Your task to perform on an android device: turn notification dots on Image 0: 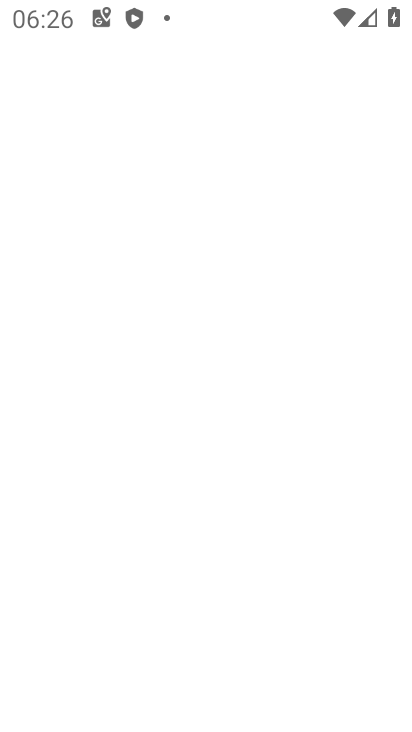
Step 0: drag from (322, 595) to (322, 105)
Your task to perform on an android device: turn notification dots on Image 1: 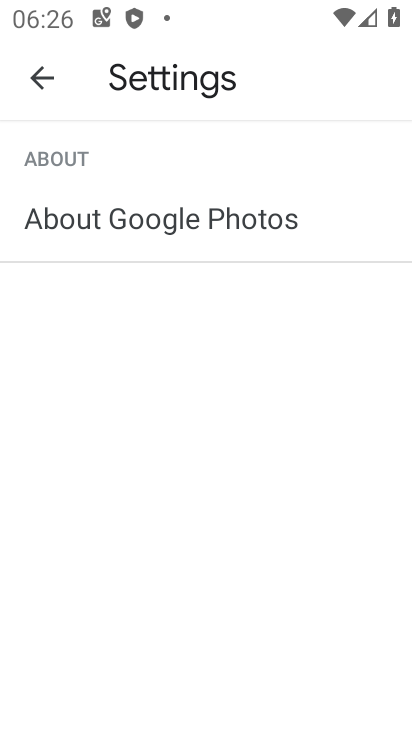
Step 1: press home button
Your task to perform on an android device: turn notification dots on Image 2: 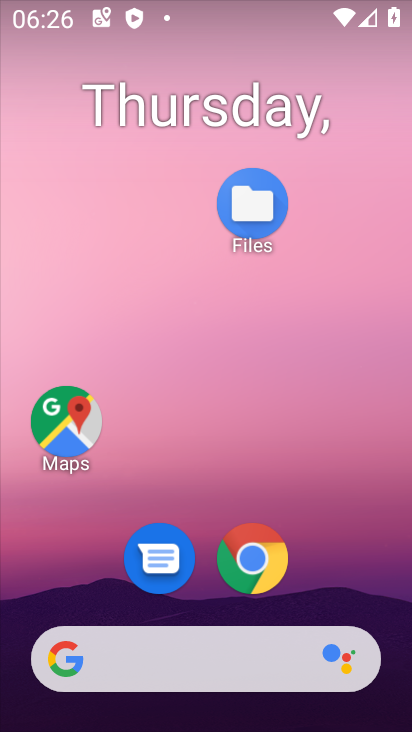
Step 2: drag from (313, 511) to (342, 161)
Your task to perform on an android device: turn notification dots on Image 3: 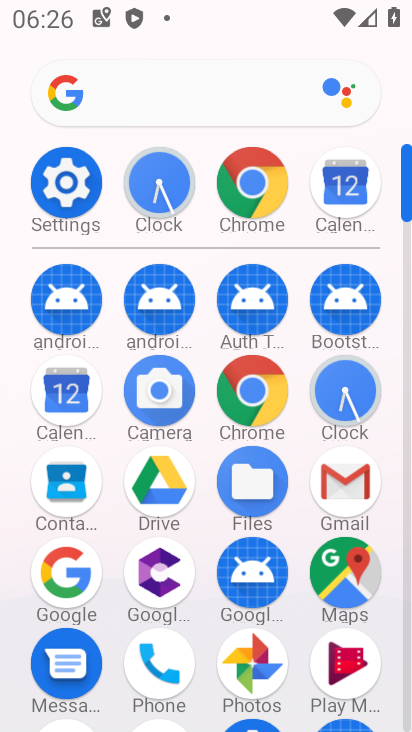
Step 3: click (64, 195)
Your task to perform on an android device: turn notification dots on Image 4: 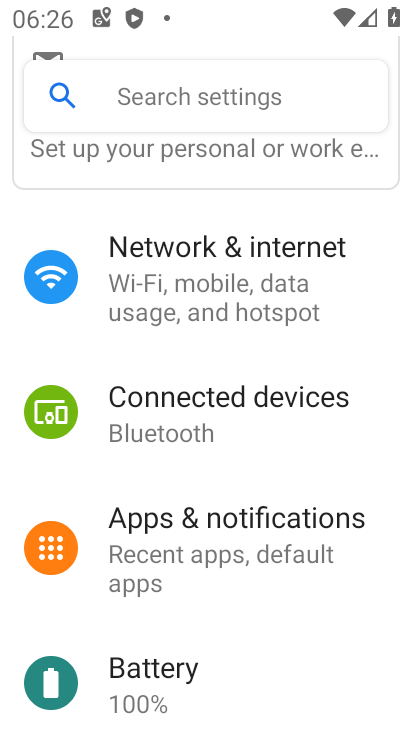
Step 4: click (219, 569)
Your task to perform on an android device: turn notification dots on Image 5: 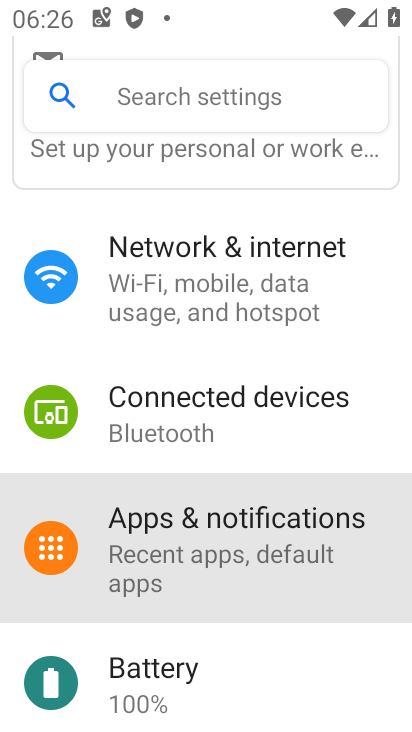
Step 5: click (240, 543)
Your task to perform on an android device: turn notification dots on Image 6: 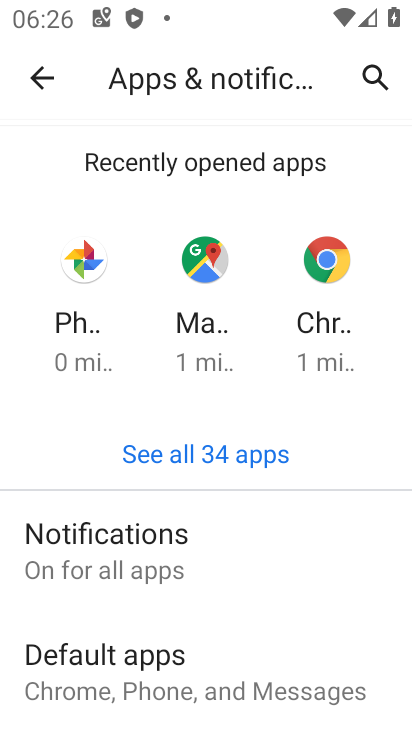
Step 6: click (80, 567)
Your task to perform on an android device: turn notification dots on Image 7: 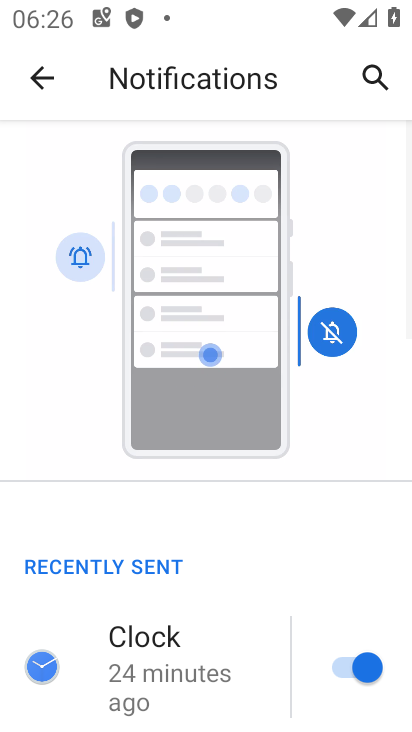
Step 7: drag from (181, 662) to (263, 272)
Your task to perform on an android device: turn notification dots on Image 8: 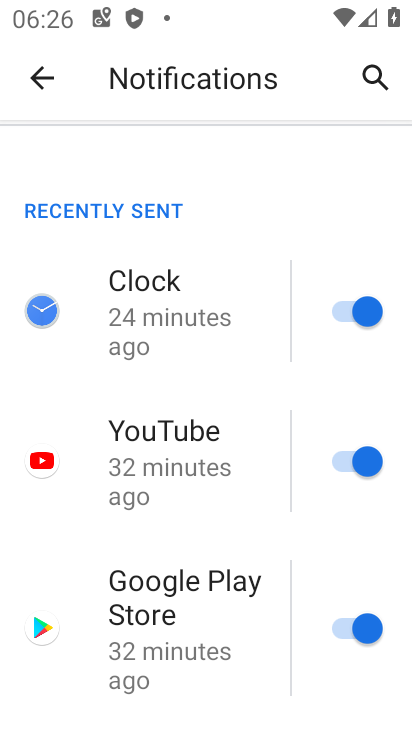
Step 8: drag from (185, 608) to (206, 265)
Your task to perform on an android device: turn notification dots on Image 9: 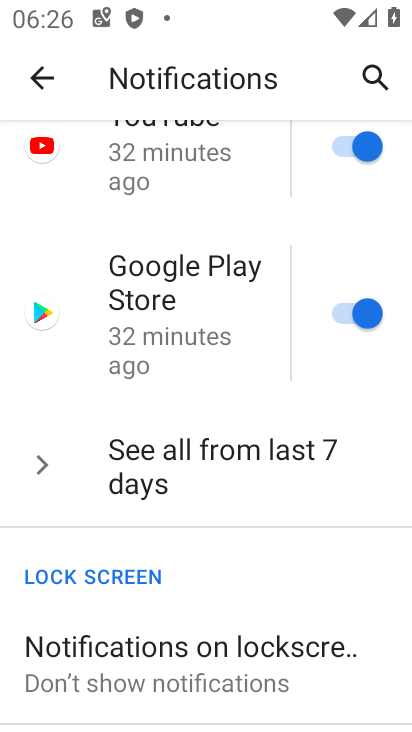
Step 9: drag from (229, 654) to (272, 322)
Your task to perform on an android device: turn notification dots on Image 10: 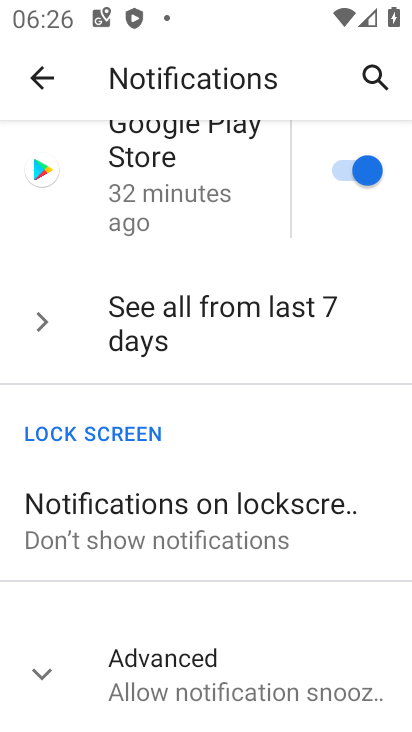
Step 10: drag from (234, 517) to (255, 274)
Your task to perform on an android device: turn notification dots on Image 11: 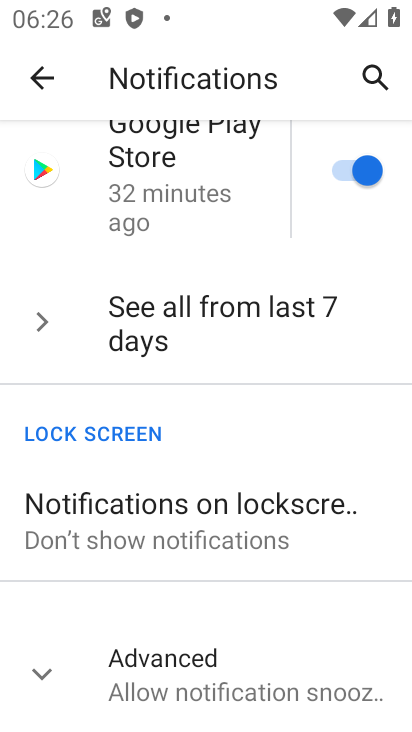
Step 11: click (173, 670)
Your task to perform on an android device: turn notification dots on Image 12: 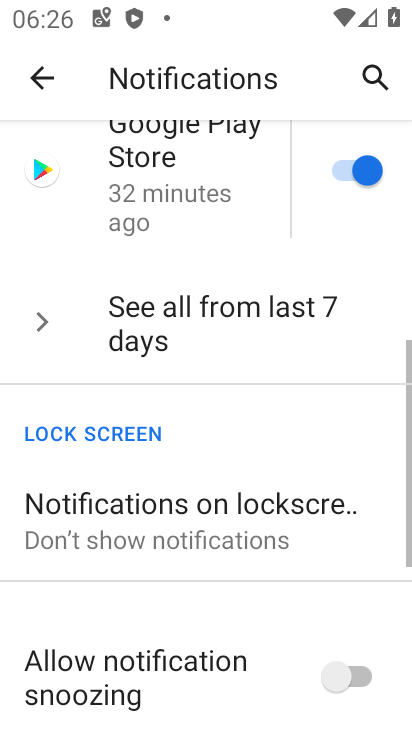
Step 12: drag from (195, 656) to (257, 275)
Your task to perform on an android device: turn notification dots on Image 13: 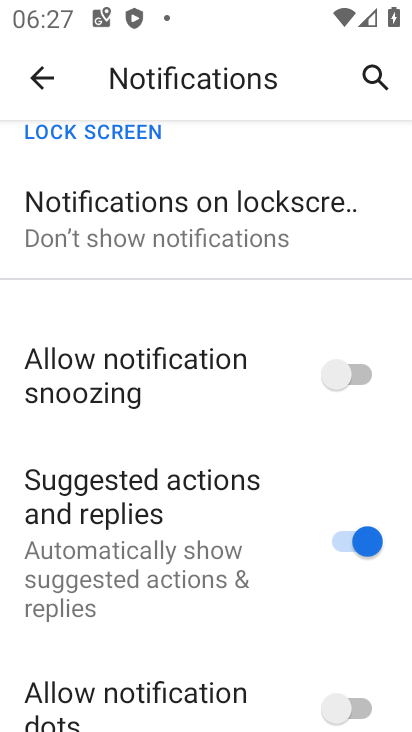
Step 13: drag from (219, 629) to (257, 298)
Your task to perform on an android device: turn notification dots on Image 14: 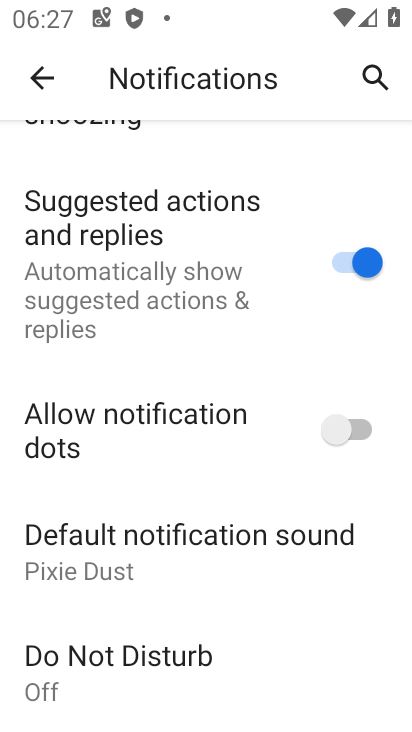
Step 14: click (360, 430)
Your task to perform on an android device: turn notification dots on Image 15: 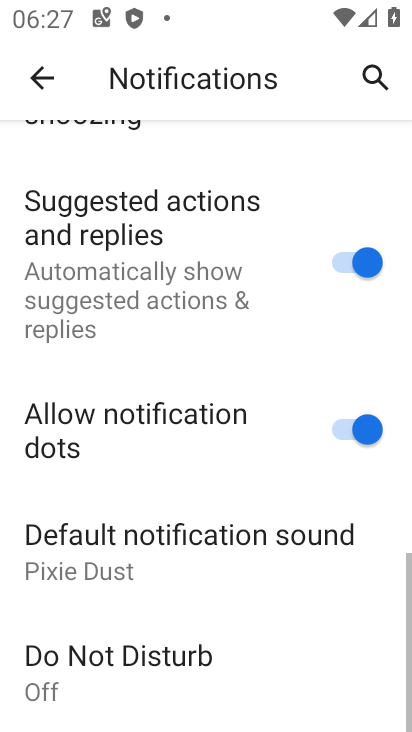
Step 15: task complete